Your task to perform on an android device: Search for "duracell triple a" on bestbuy, select the first entry, and add it to the cart. Image 0: 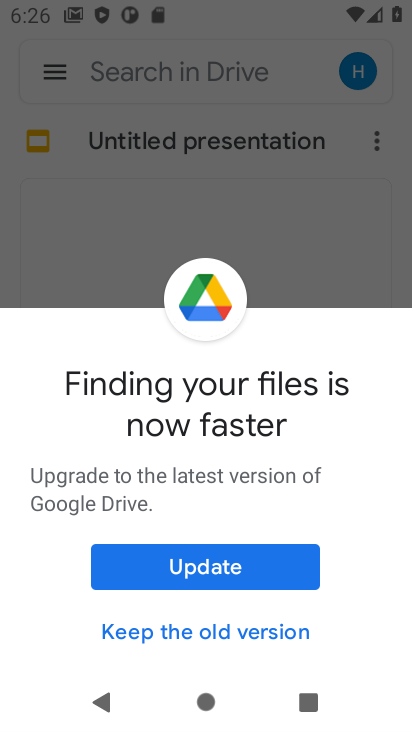
Step 0: press home button
Your task to perform on an android device: Search for "duracell triple a" on bestbuy, select the first entry, and add it to the cart. Image 1: 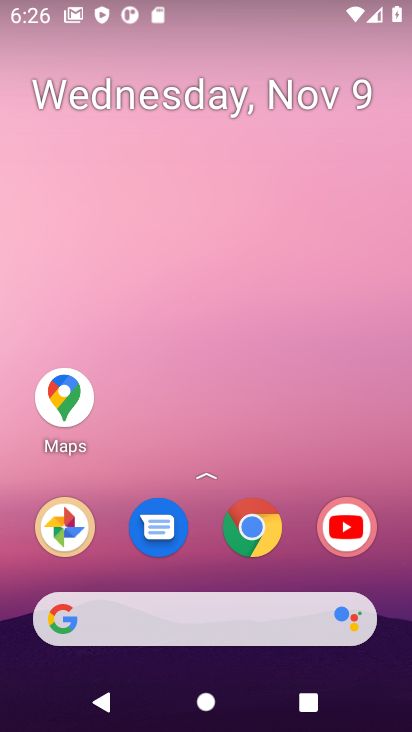
Step 1: click (249, 525)
Your task to perform on an android device: Search for "duracell triple a" on bestbuy, select the first entry, and add it to the cart. Image 2: 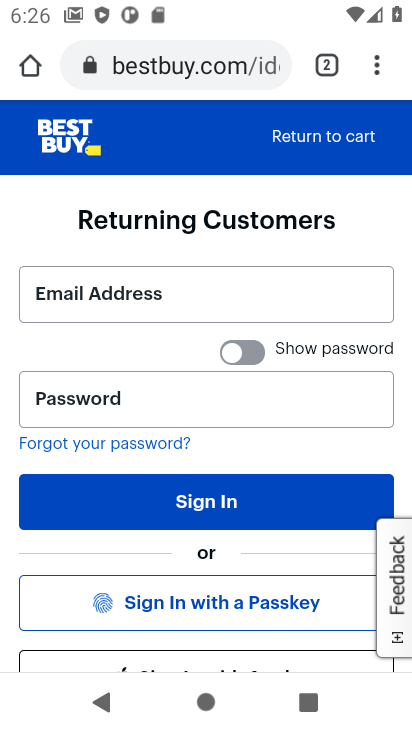
Step 2: click (200, 72)
Your task to perform on an android device: Search for "duracell triple a" on bestbuy, select the first entry, and add it to the cart. Image 3: 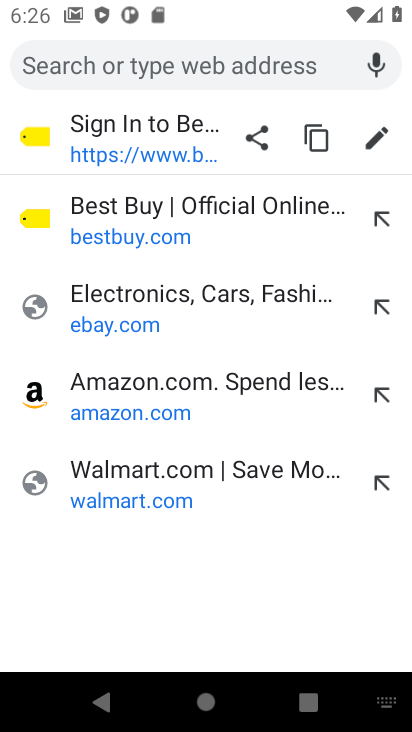
Step 3: click (117, 225)
Your task to perform on an android device: Search for "duracell triple a" on bestbuy, select the first entry, and add it to the cart. Image 4: 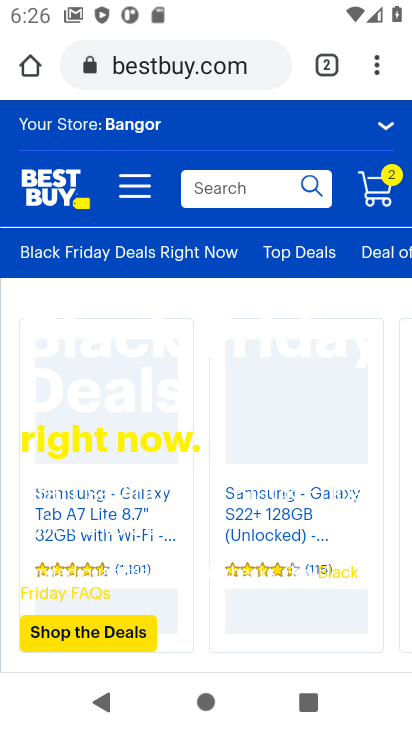
Step 4: click (228, 197)
Your task to perform on an android device: Search for "duracell triple a" on bestbuy, select the first entry, and add it to the cart. Image 5: 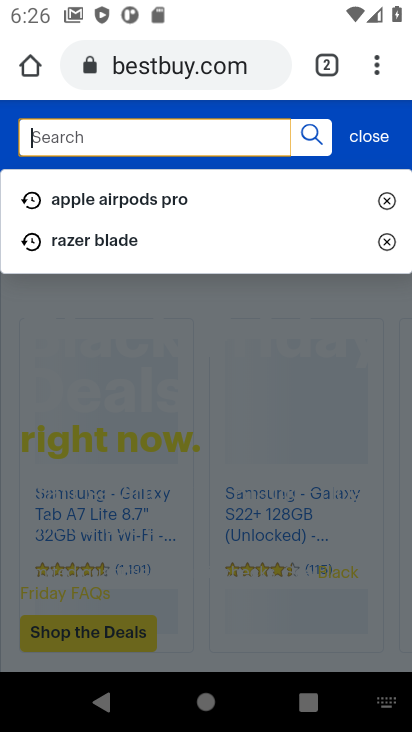
Step 5: type "duracell triple a"
Your task to perform on an android device: Search for "duracell triple a" on bestbuy, select the first entry, and add it to the cart. Image 6: 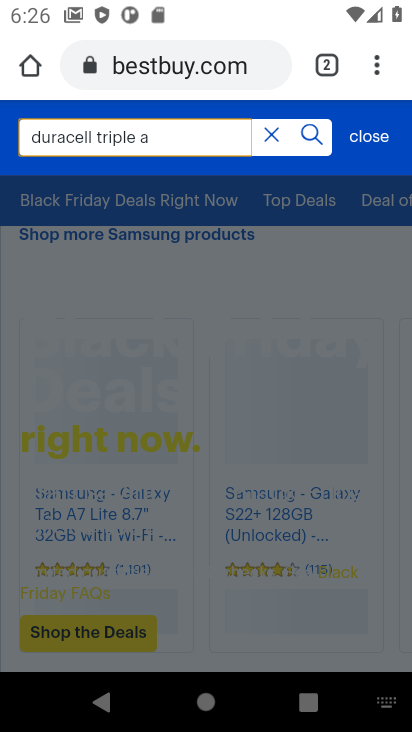
Step 6: click (304, 133)
Your task to perform on an android device: Search for "duracell triple a" on bestbuy, select the first entry, and add it to the cart. Image 7: 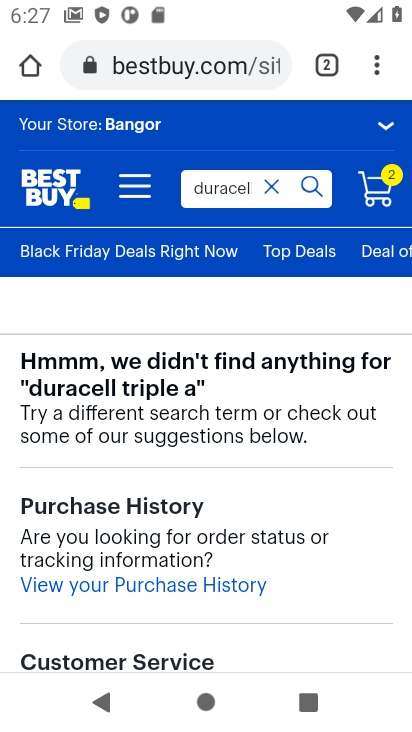
Step 7: task complete